Your task to perform on an android device: Go to Yahoo.com Image 0: 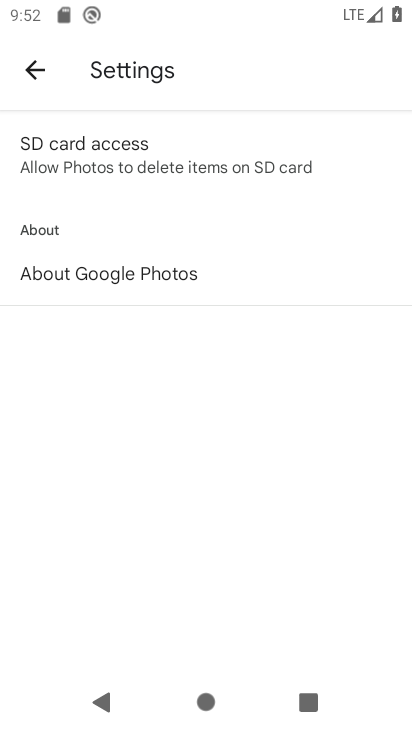
Step 0: press home button
Your task to perform on an android device: Go to Yahoo.com Image 1: 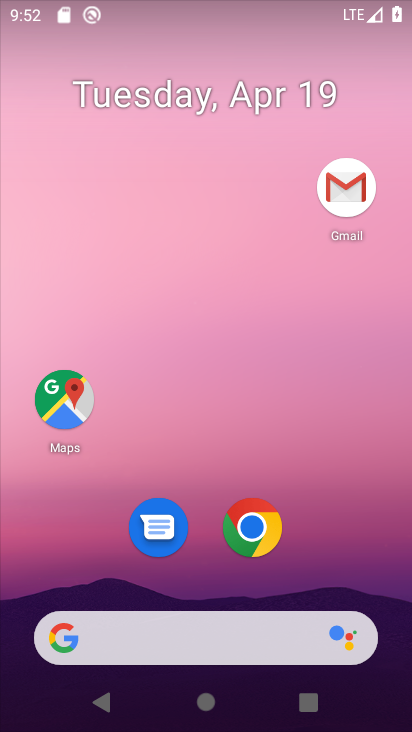
Step 1: drag from (329, 558) to (350, 106)
Your task to perform on an android device: Go to Yahoo.com Image 2: 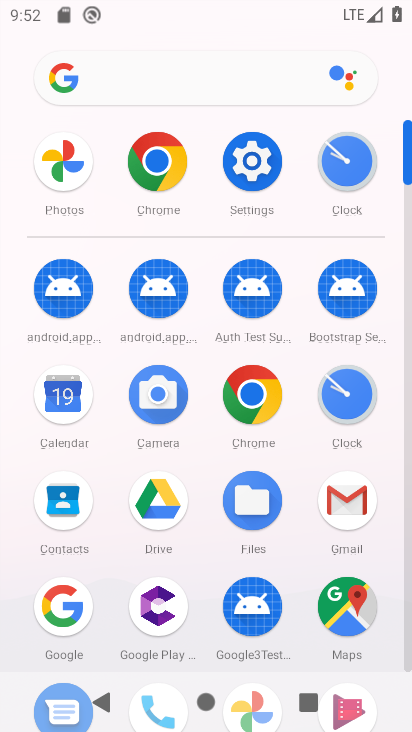
Step 2: click (257, 402)
Your task to perform on an android device: Go to Yahoo.com Image 3: 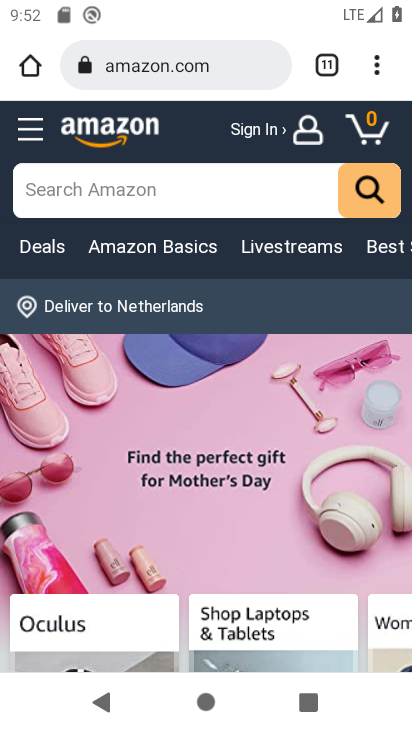
Step 3: click (192, 58)
Your task to perform on an android device: Go to Yahoo.com Image 4: 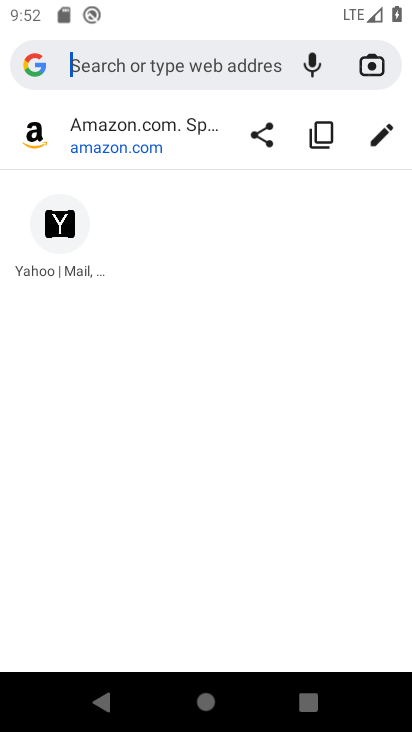
Step 4: type "yahoo.com"
Your task to perform on an android device: Go to Yahoo.com Image 5: 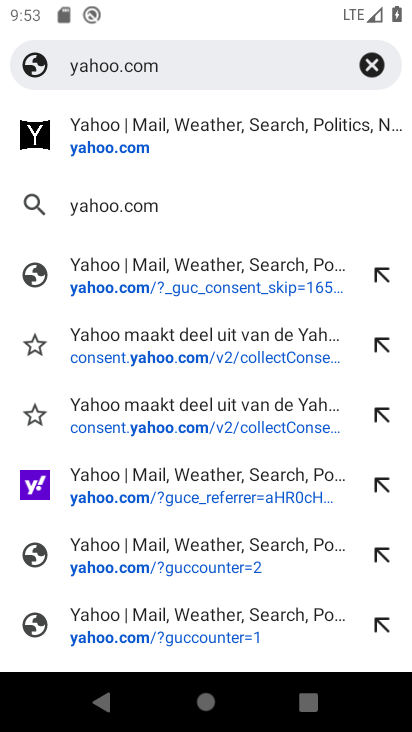
Step 5: click (123, 143)
Your task to perform on an android device: Go to Yahoo.com Image 6: 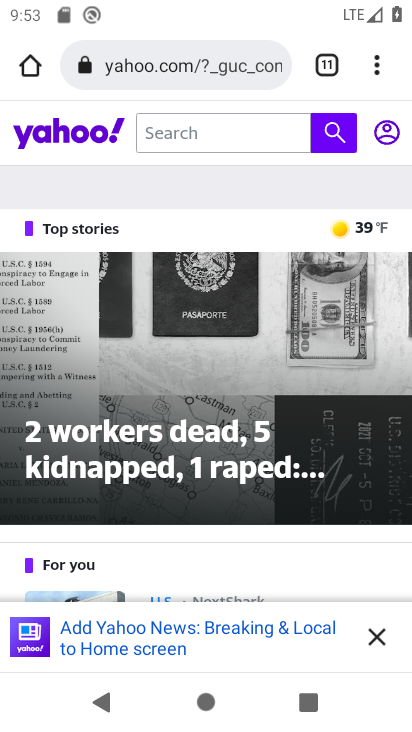
Step 6: task complete